Your task to perform on an android device: make emails show in primary in the gmail app Image 0: 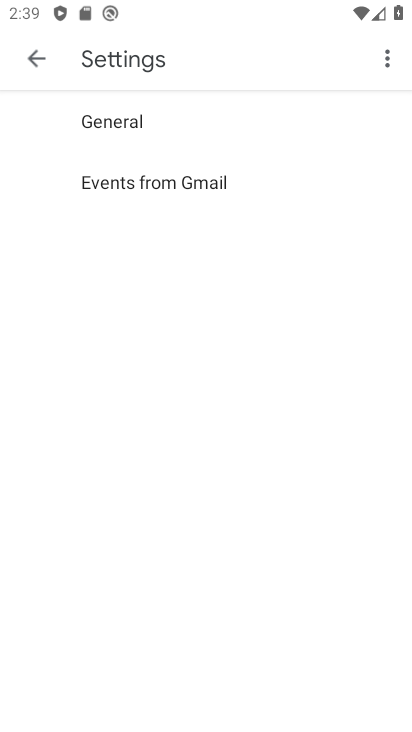
Step 0: press home button
Your task to perform on an android device: make emails show in primary in the gmail app Image 1: 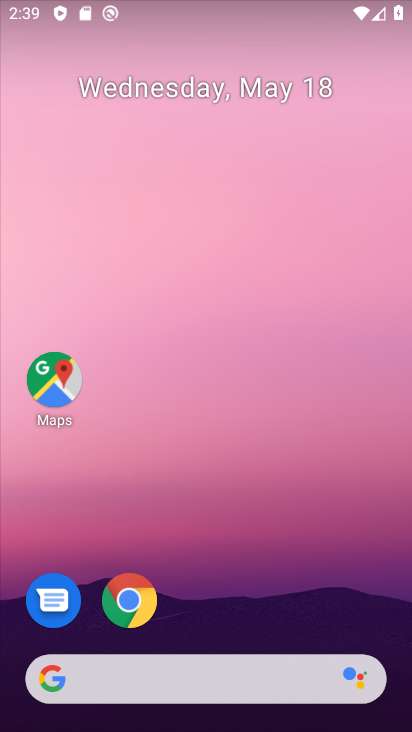
Step 1: drag from (389, 595) to (314, 199)
Your task to perform on an android device: make emails show in primary in the gmail app Image 2: 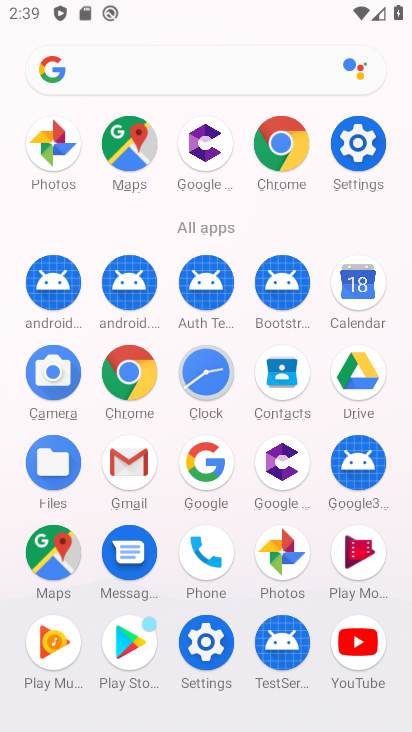
Step 2: click (120, 456)
Your task to perform on an android device: make emails show in primary in the gmail app Image 3: 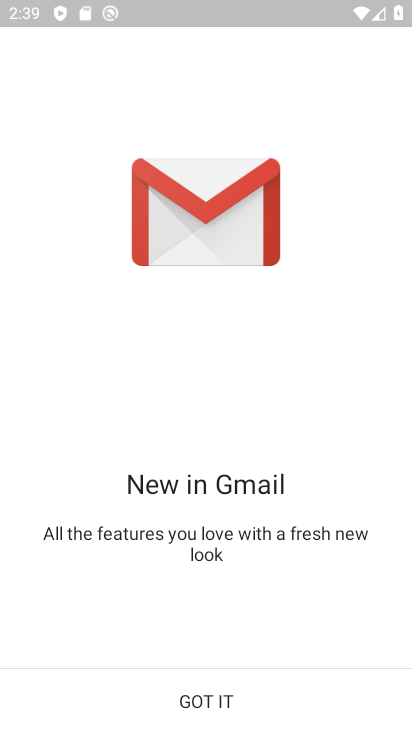
Step 3: click (202, 697)
Your task to perform on an android device: make emails show in primary in the gmail app Image 4: 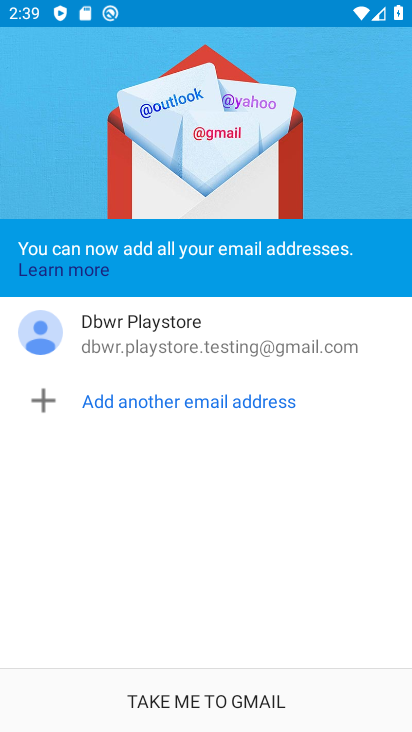
Step 4: click (196, 694)
Your task to perform on an android device: make emails show in primary in the gmail app Image 5: 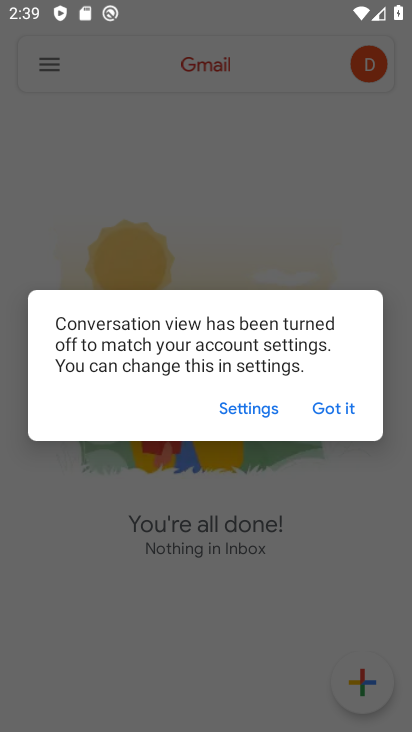
Step 5: click (345, 416)
Your task to perform on an android device: make emails show in primary in the gmail app Image 6: 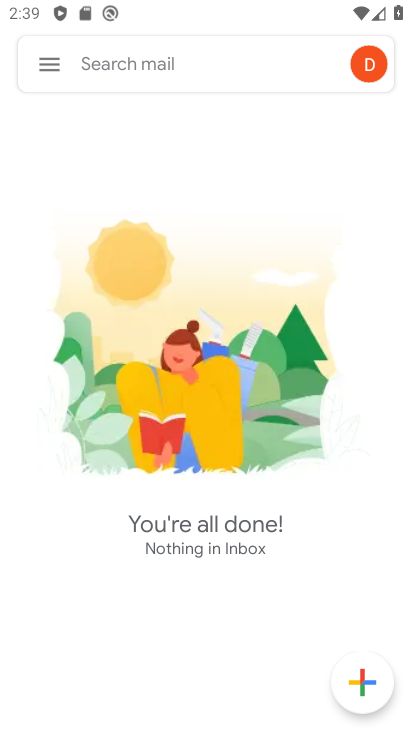
Step 6: click (53, 55)
Your task to perform on an android device: make emails show in primary in the gmail app Image 7: 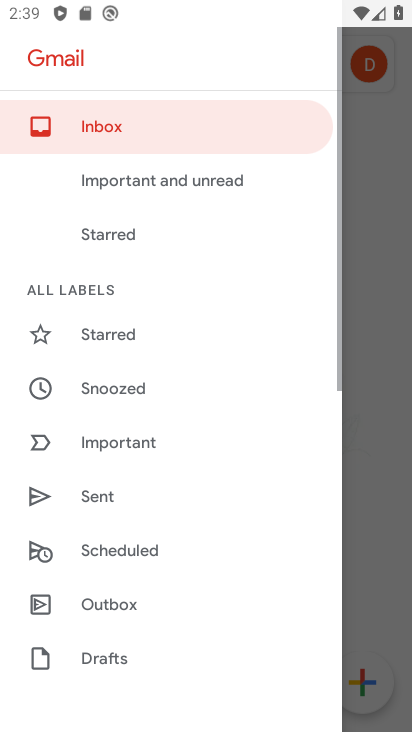
Step 7: drag from (164, 685) to (178, 320)
Your task to perform on an android device: make emails show in primary in the gmail app Image 8: 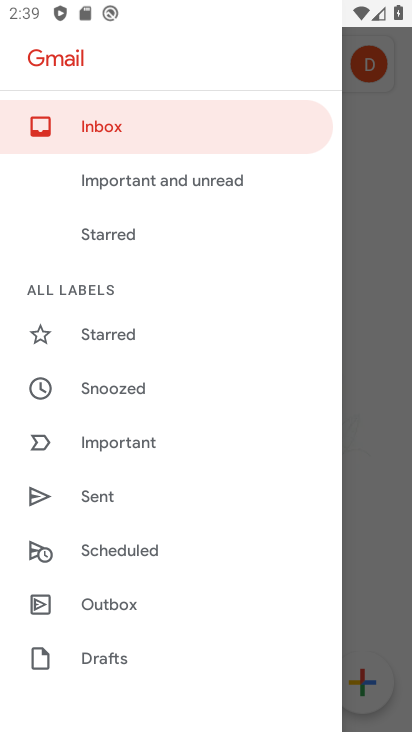
Step 8: drag from (185, 615) to (180, 284)
Your task to perform on an android device: make emails show in primary in the gmail app Image 9: 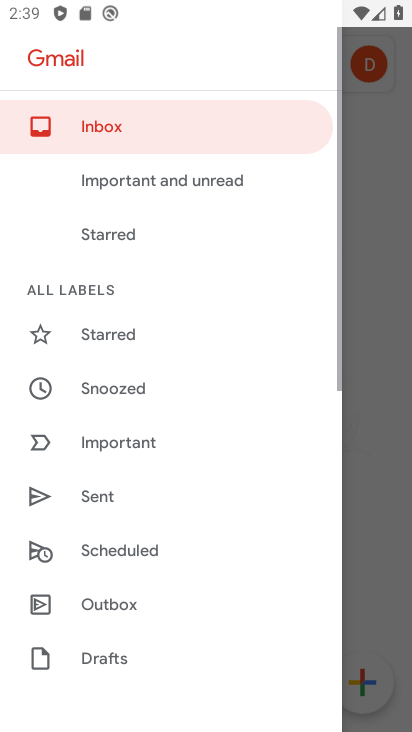
Step 9: drag from (183, 680) to (300, 333)
Your task to perform on an android device: make emails show in primary in the gmail app Image 10: 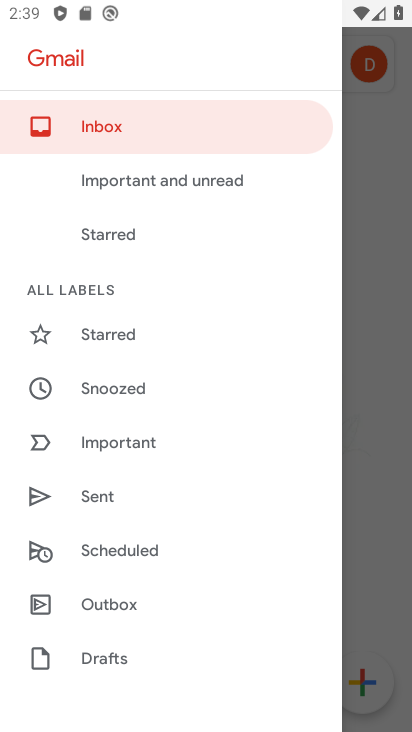
Step 10: drag from (180, 662) to (203, 204)
Your task to perform on an android device: make emails show in primary in the gmail app Image 11: 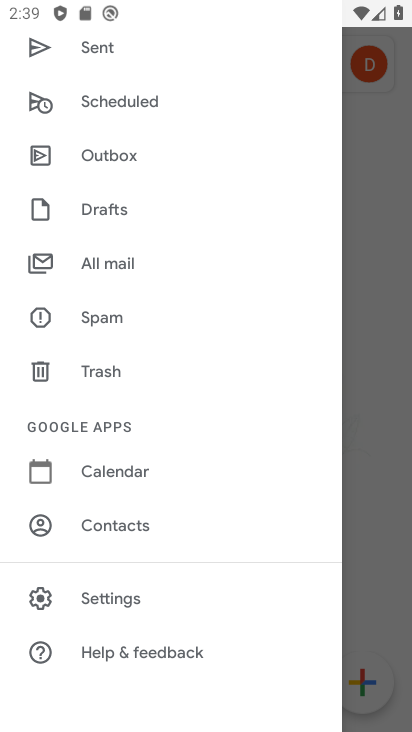
Step 11: click (122, 595)
Your task to perform on an android device: make emails show in primary in the gmail app Image 12: 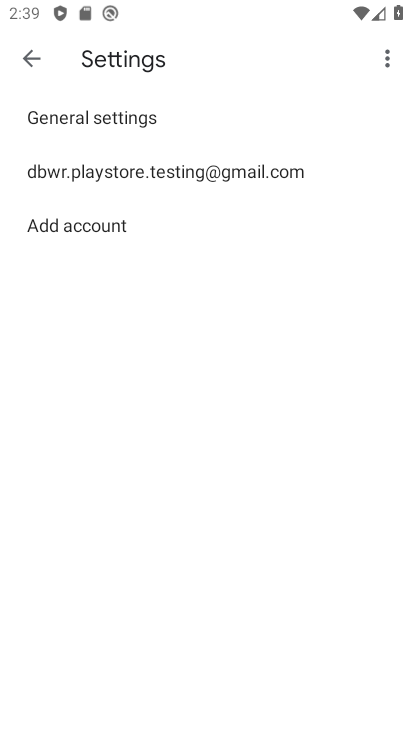
Step 12: click (168, 169)
Your task to perform on an android device: make emails show in primary in the gmail app Image 13: 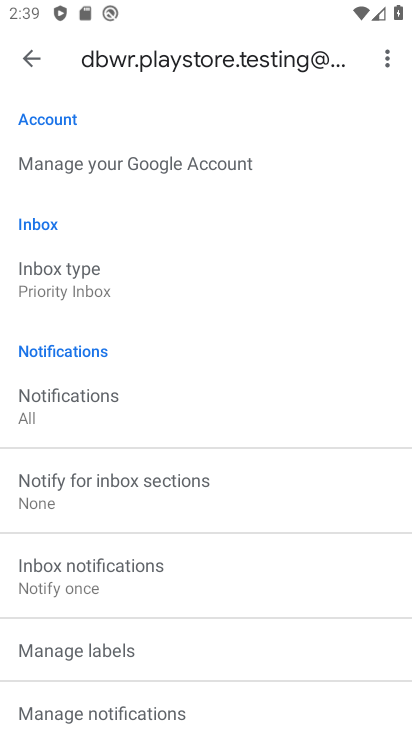
Step 13: drag from (182, 661) to (239, 293)
Your task to perform on an android device: make emails show in primary in the gmail app Image 14: 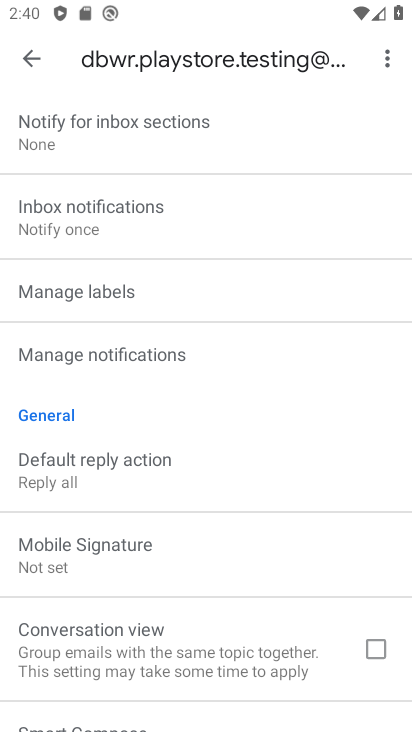
Step 14: drag from (202, 214) to (154, 658)
Your task to perform on an android device: make emails show in primary in the gmail app Image 15: 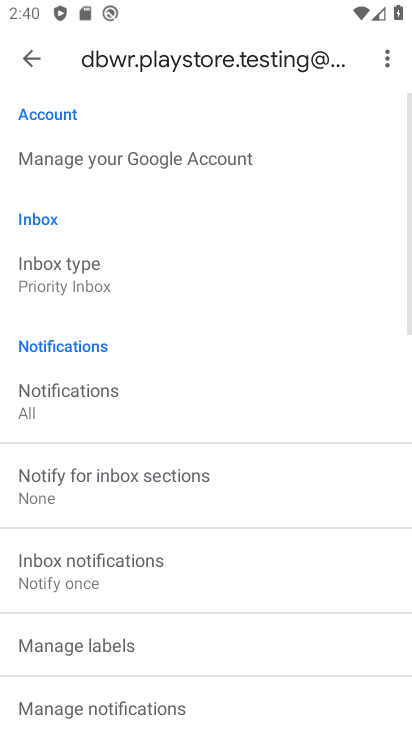
Step 15: drag from (158, 329) to (162, 633)
Your task to perform on an android device: make emails show in primary in the gmail app Image 16: 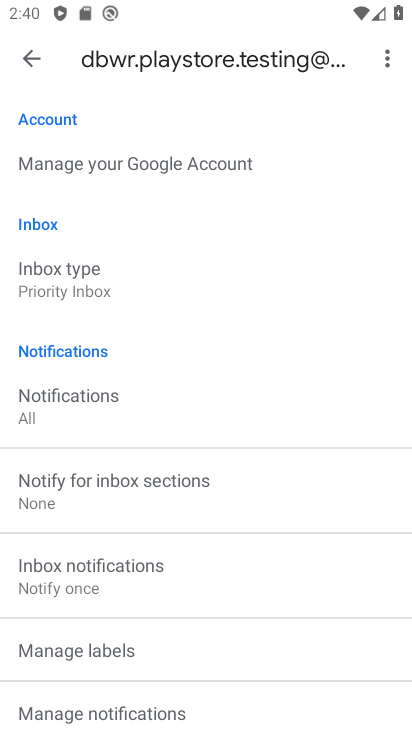
Step 16: drag from (167, 629) to (198, 303)
Your task to perform on an android device: make emails show in primary in the gmail app Image 17: 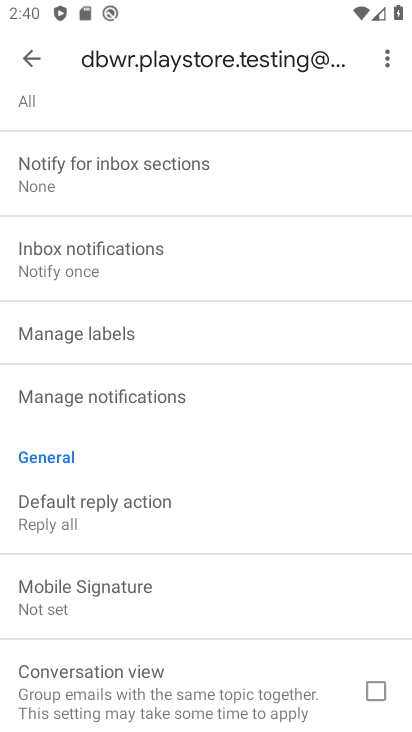
Step 17: drag from (150, 620) to (194, 288)
Your task to perform on an android device: make emails show in primary in the gmail app Image 18: 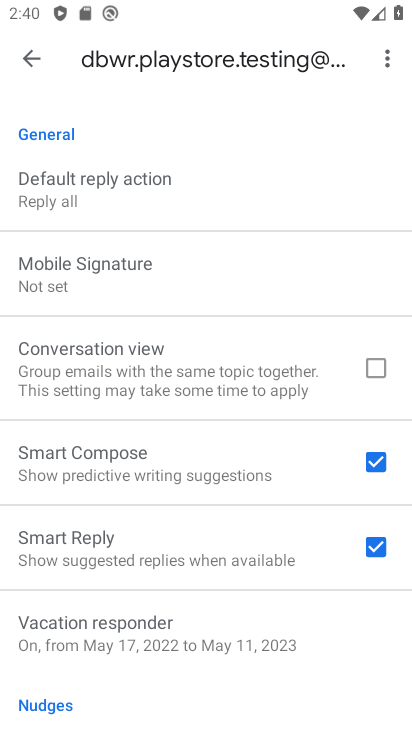
Step 18: drag from (211, 272) to (192, 583)
Your task to perform on an android device: make emails show in primary in the gmail app Image 19: 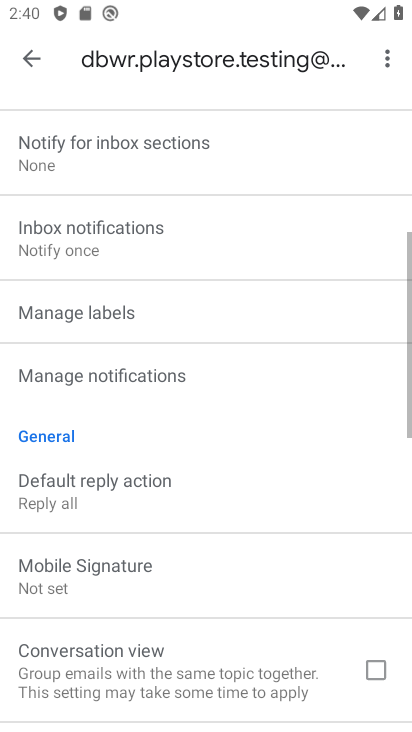
Step 19: drag from (198, 247) to (195, 663)
Your task to perform on an android device: make emails show in primary in the gmail app Image 20: 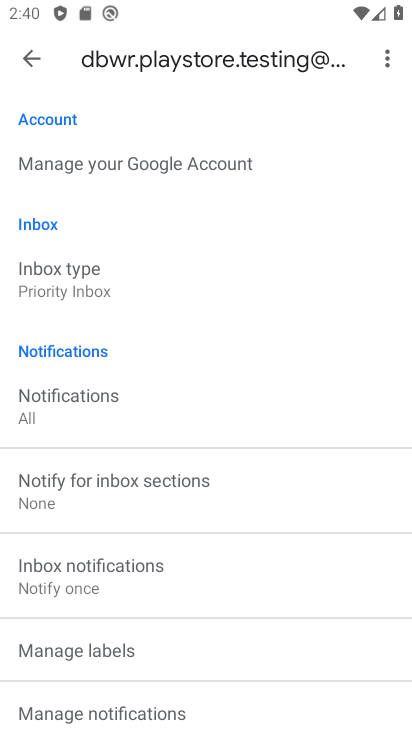
Step 20: click (136, 297)
Your task to perform on an android device: make emails show in primary in the gmail app Image 21: 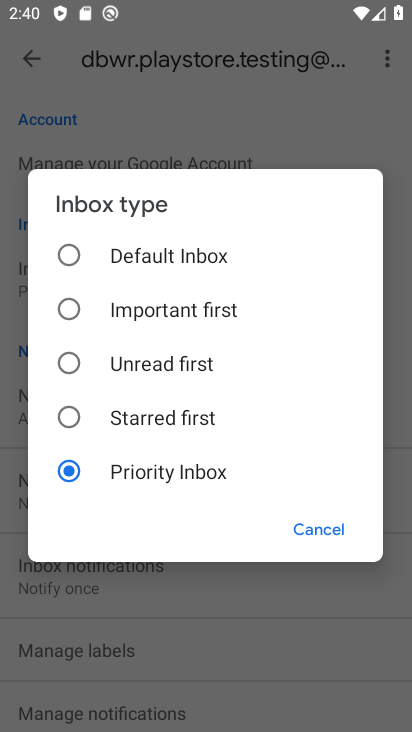
Step 21: click (62, 253)
Your task to perform on an android device: make emails show in primary in the gmail app Image 22: 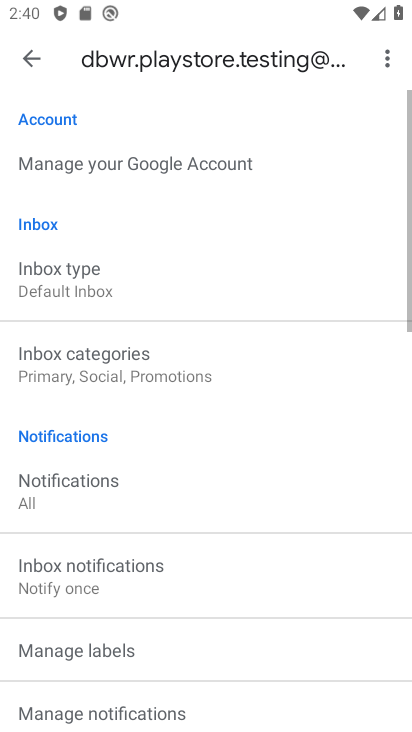
Step 22: task complete